Your task to perform on an android device: open app "Google Chat" (install if not already installed) Image 0: 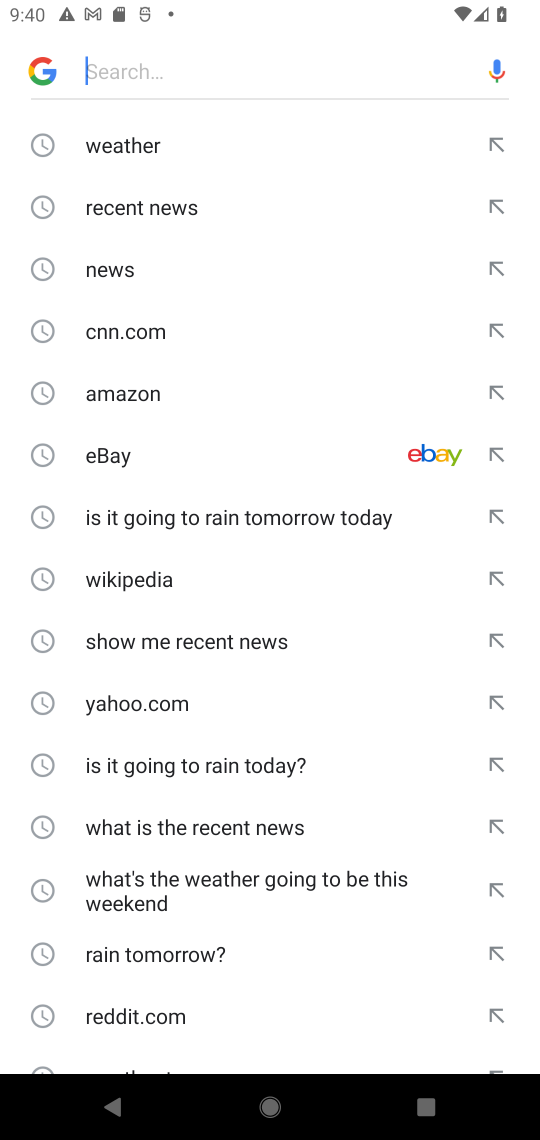
Step 0: press home button
Your task to perform on an android device: open app "Google Chat" (install if not already installed) Image 1: 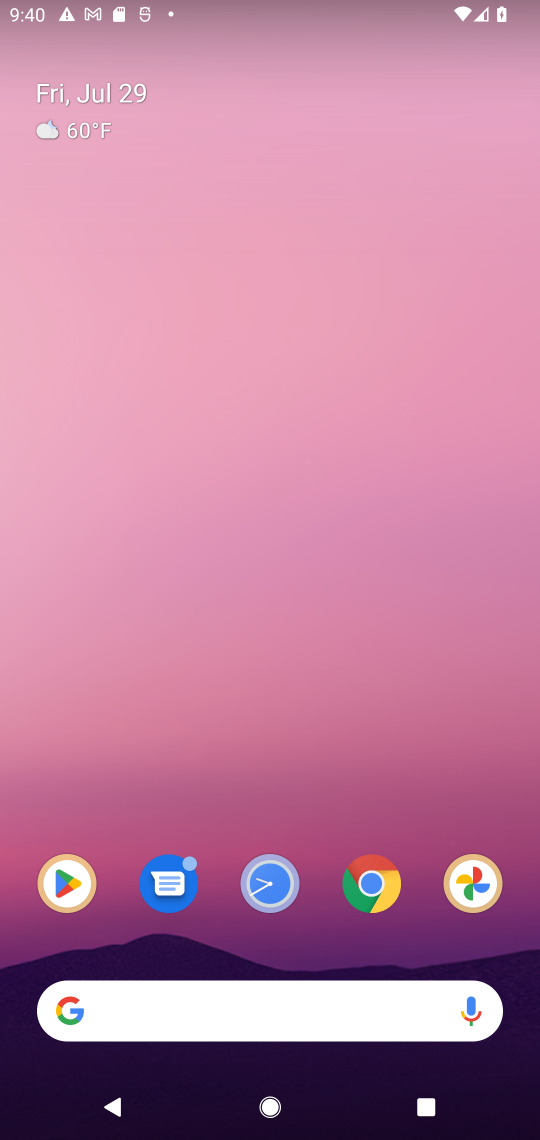
Step 1: click (61, 883)
Your task to perform on an android device: open app "Google Chat" (install if not already installed) Image 2: 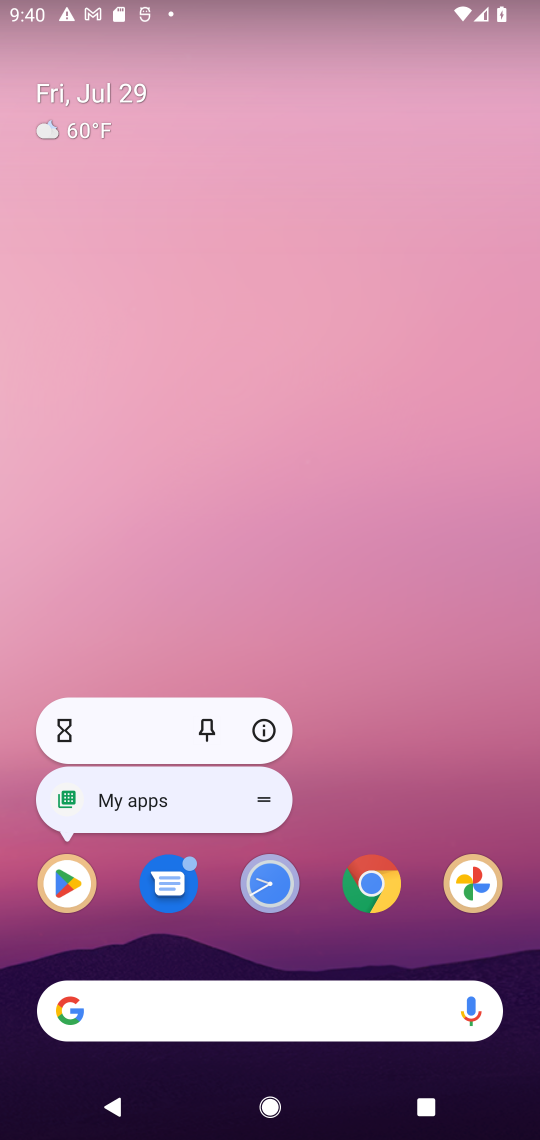
Step 2: click (63, 892)
Your task to perform on an android device: open app "Google Chat" (install if not already installed) Image 3: 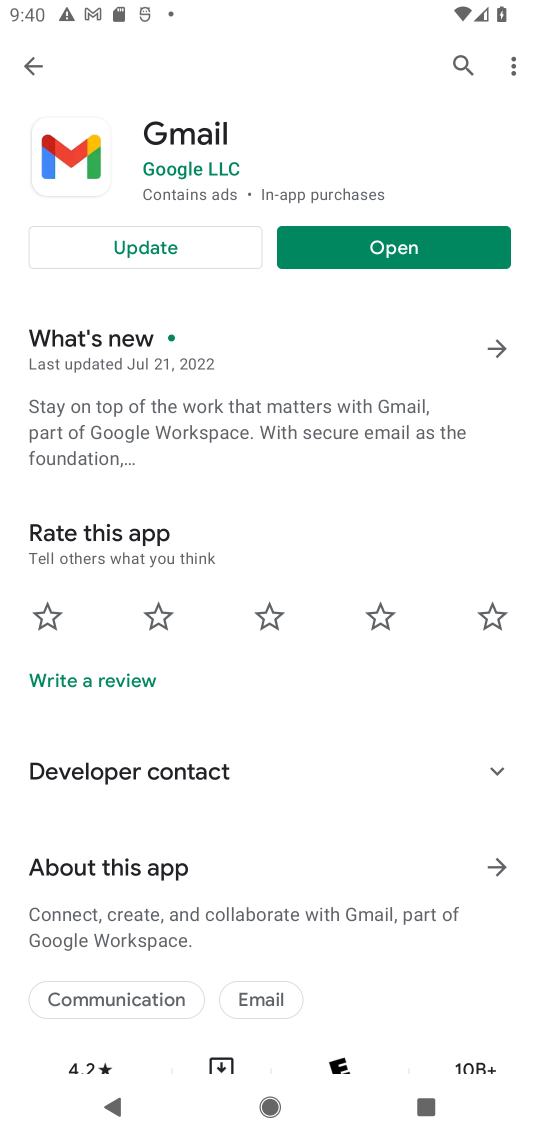
Step 3: click (16, 63)
Your task to perform on an android device: open app "Google Chat" (install if not already installed) Image 4: 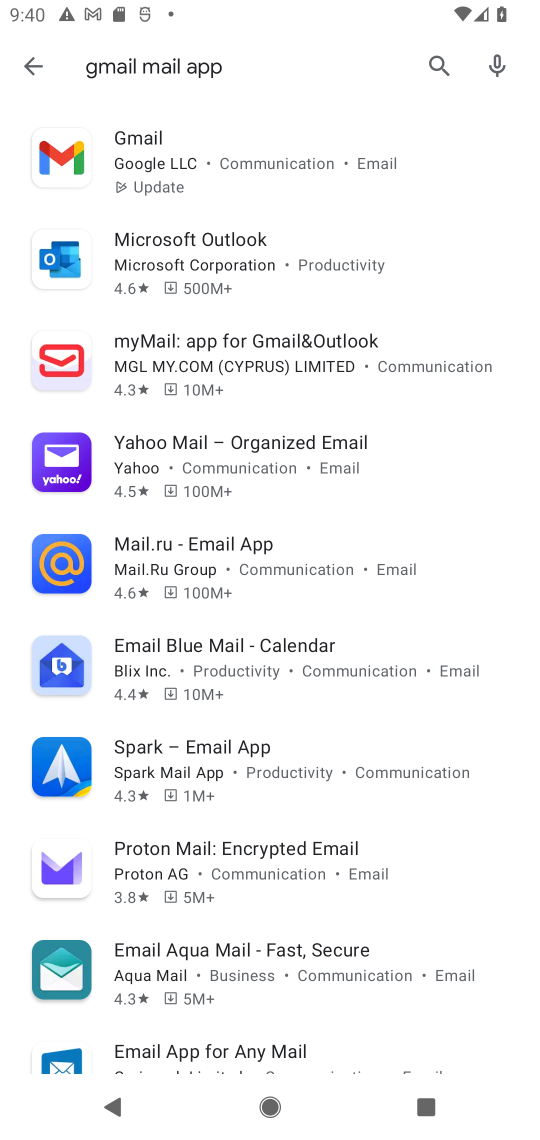
Step 4: click (205, 55)
Your task to perform on an android device: open app "Google Chat" (install if not already installed) Image 5: 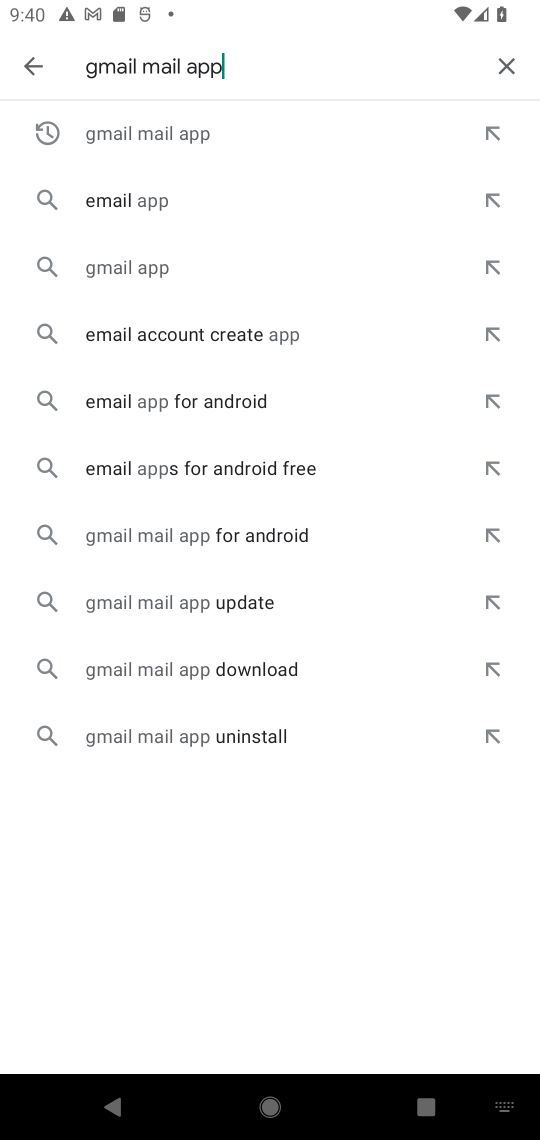
Step 5: click (502, 58)
Your task to perform on an android device: open app "Google Chat" (install if not already installed) Image 6: 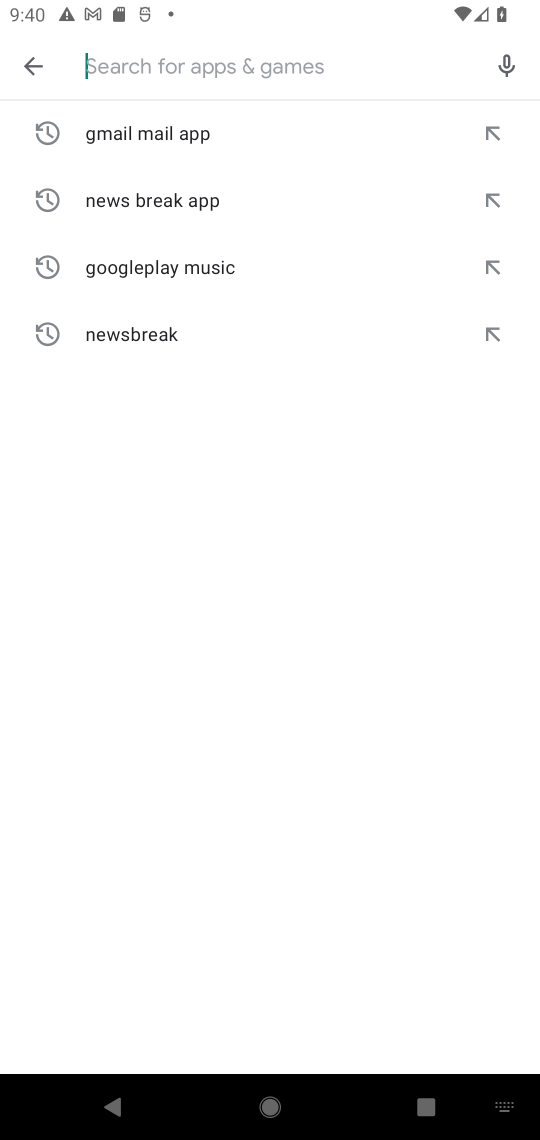
Step 6: type "google chat"
Your task to perform on an android device: open app "Google Chat" (install if not already installed) Image 7: 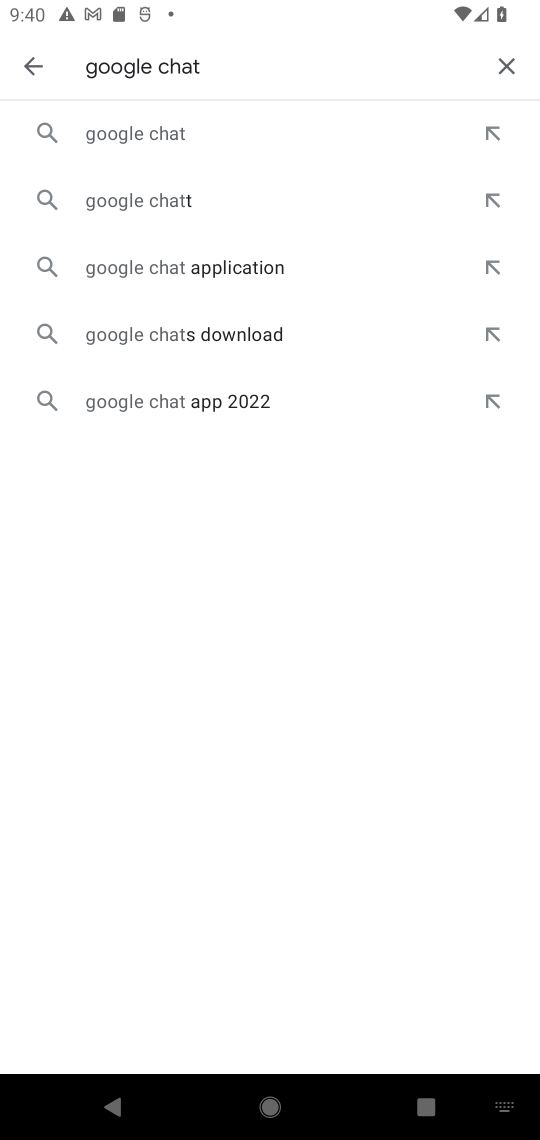
Step 7: click (147, 141)
Your task to perform on an android device: open app "Google Chat" (install if not already installed) Image 8: 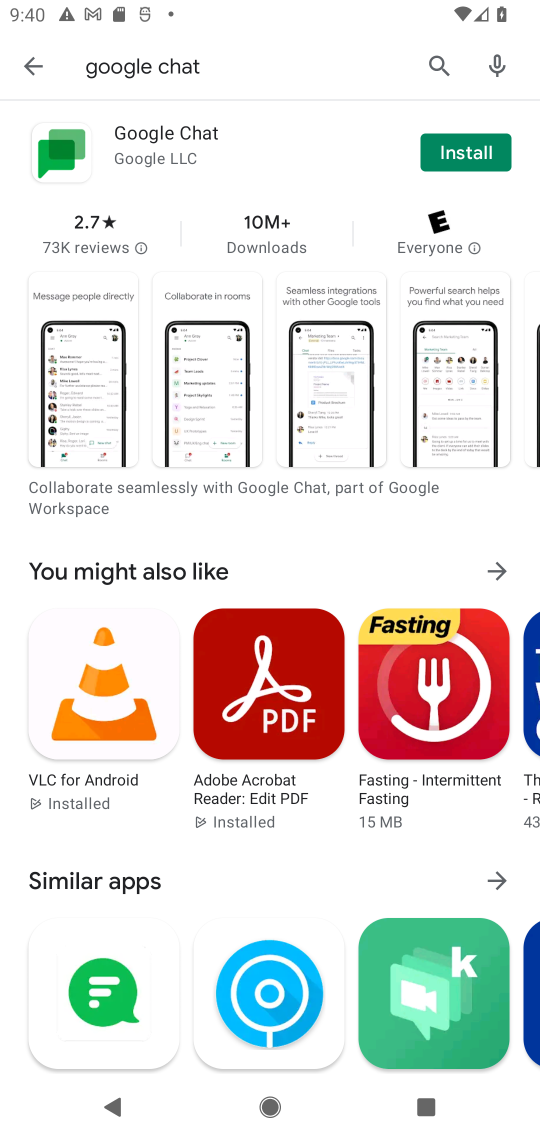
Step 8: click (463, 155)
Your task to perform on an android device: open app "Google Chat" (install if not already installed) Image 9: 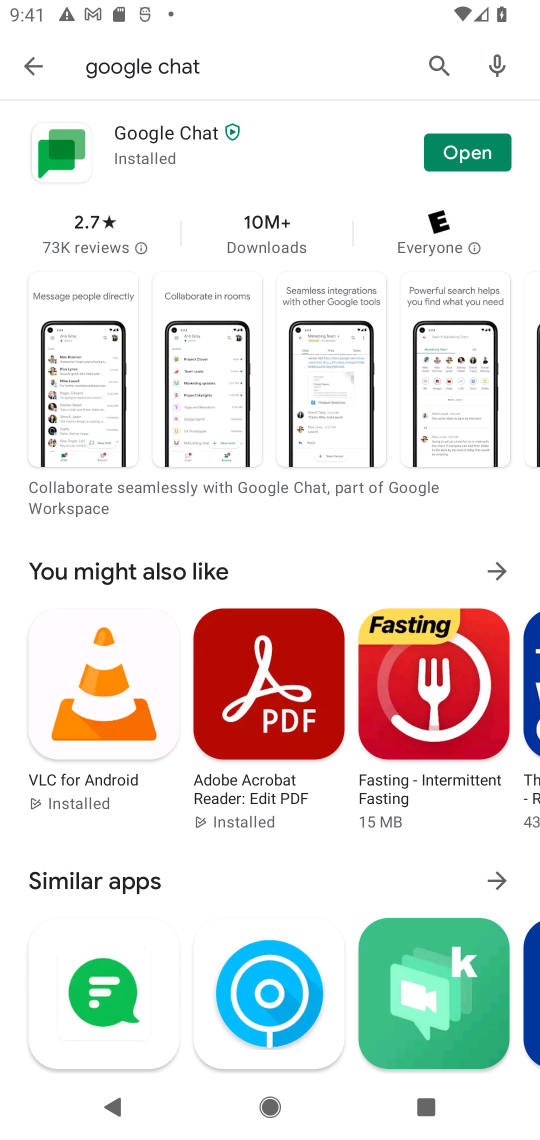
Step 9: click (470, 156)
Your task to perform on an android device: open app "Google Chat" (install if not already installed) Image 10: 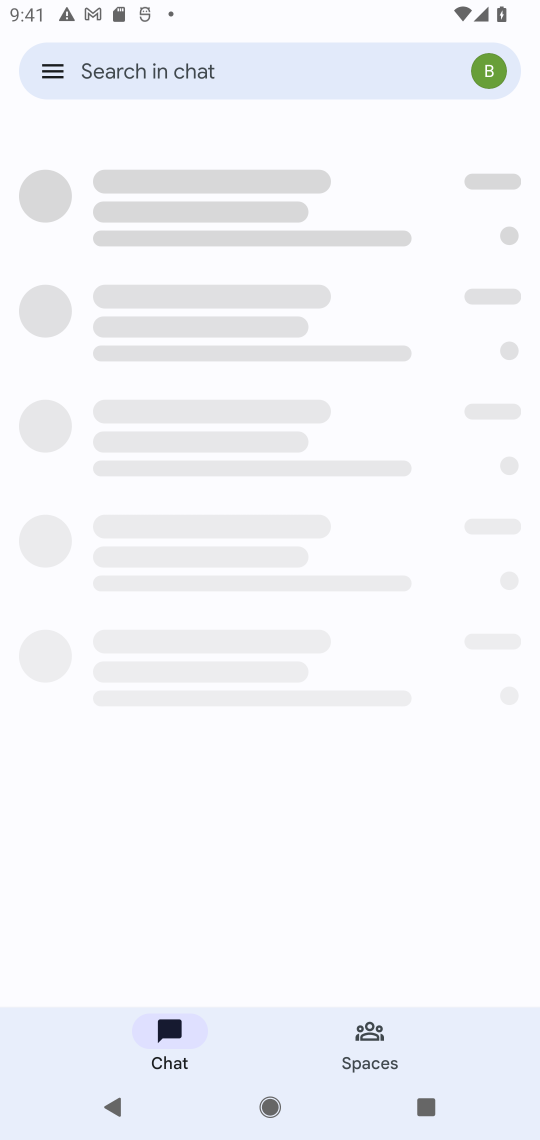
Step 10: task complete